Your task to perform on an android device: Go to Wikipedia Image 0: 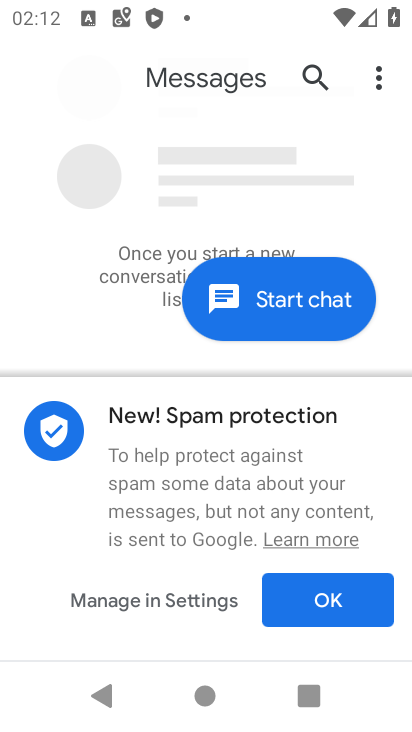
Step 0: press home button
Your task to perform on an android device: Go to Wikipedia Image 1: 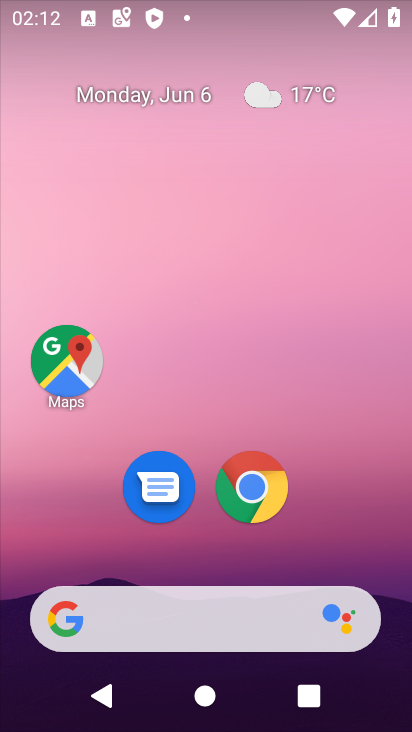
Step 1: click (254, 485)
Your task to perform on an android device: Go to Wikipedia Image 2: 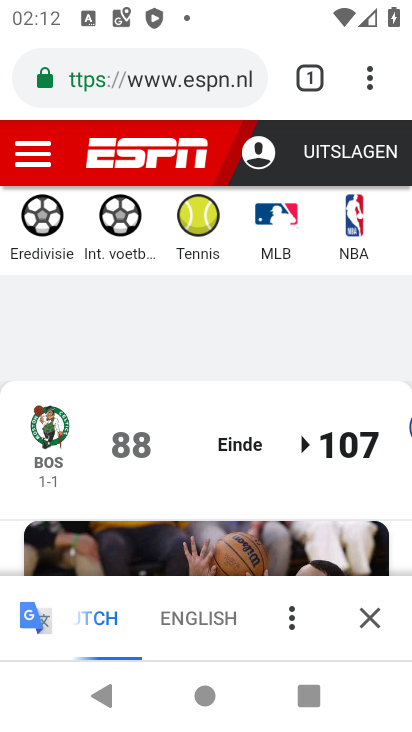
Step 2: click (201, 59)
Your task to perform on an android device: Go to Wikipedia Image 3: 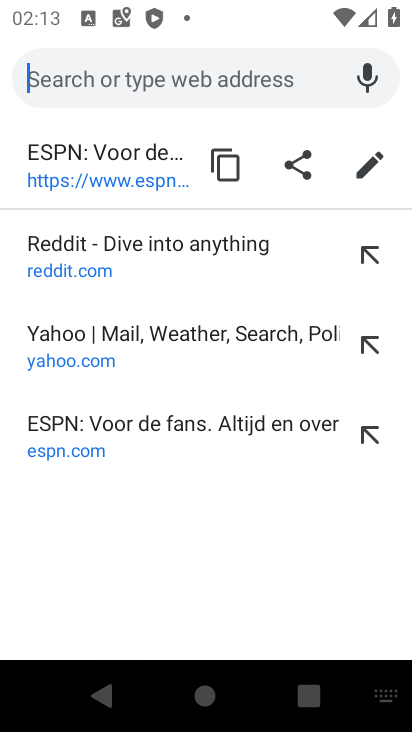
Step 3: type "wikipedia"
Your task to perform on an android device: Go to Wikipedia Image 4: 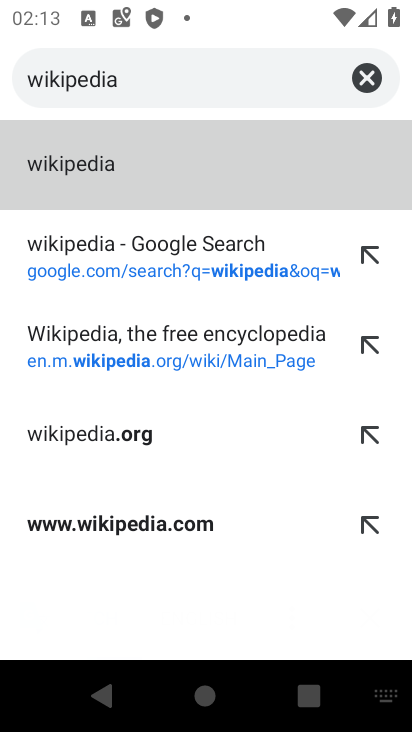
Step 4: click (104, 172)
Your task to perform on an android device: Go to Wikipedia Image 5: 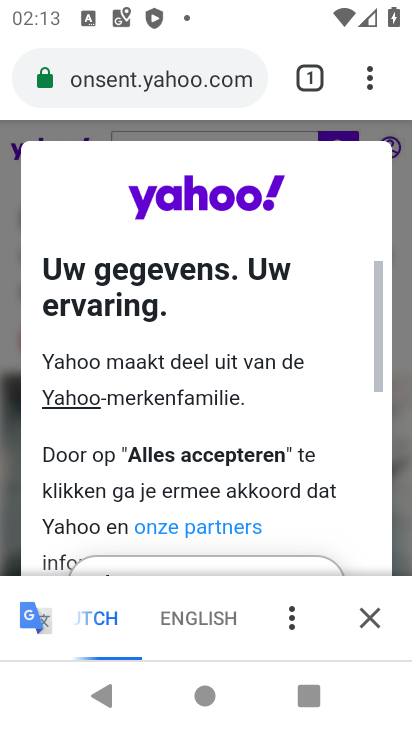
Step 5: drag from (320, 511) to (246, 25)
Your task to perform on an android device: Go to Wikipedia Image 6: 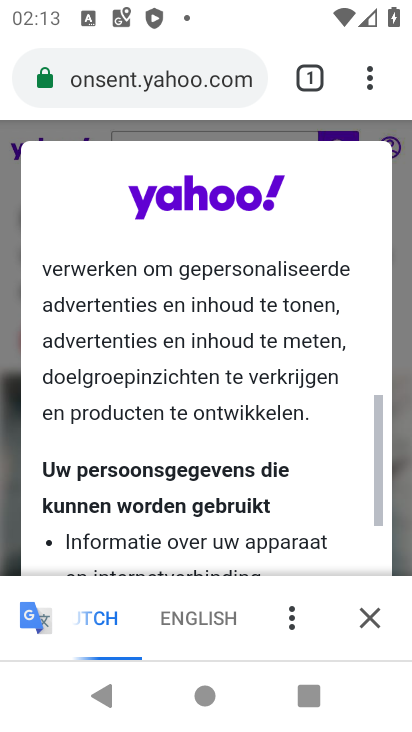
Step 6: drag from (307, 515) to (240, 46)
Your task to perform on an android device: Go to Wikipedia Image 7: 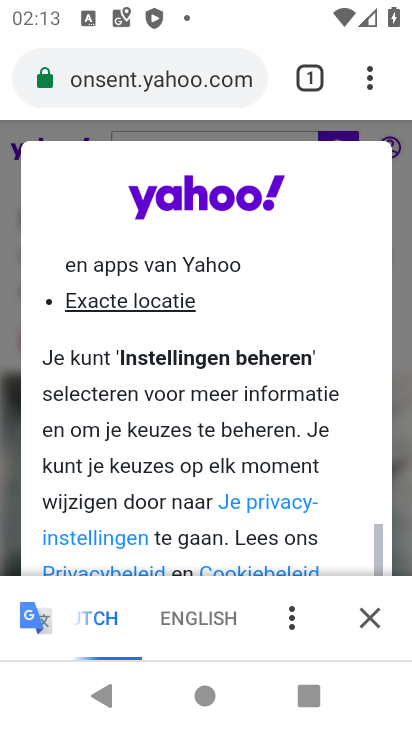
Step 7: drag from (294, 493) to (236, 60)
Your task to perform on an android device: Go to Wikipedia Image 8: 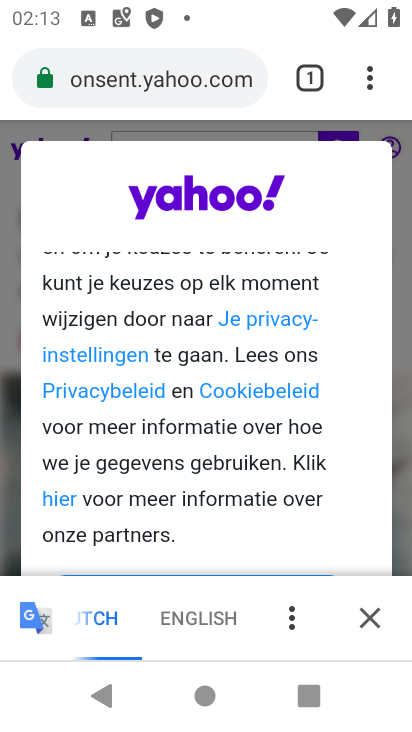
Step 8: click (370, 608)
Your task to perform on an android device: Go to Wikipedia Image 9: 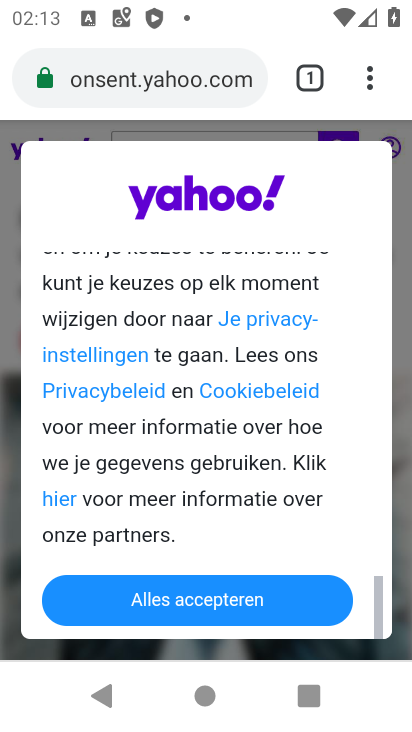
Step 9: click (181, 593)
Your task to perform on an android device: Go to Wikipedia Image 10: 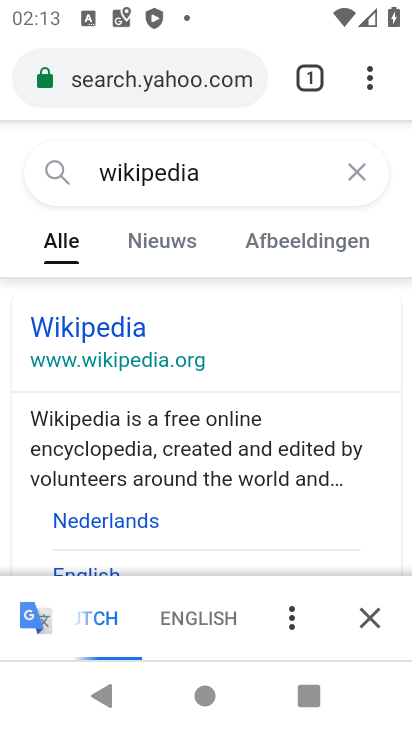
Step 10: click (79, 348)
Your task to perform on an android device: Go to Wikipedia Image 11: 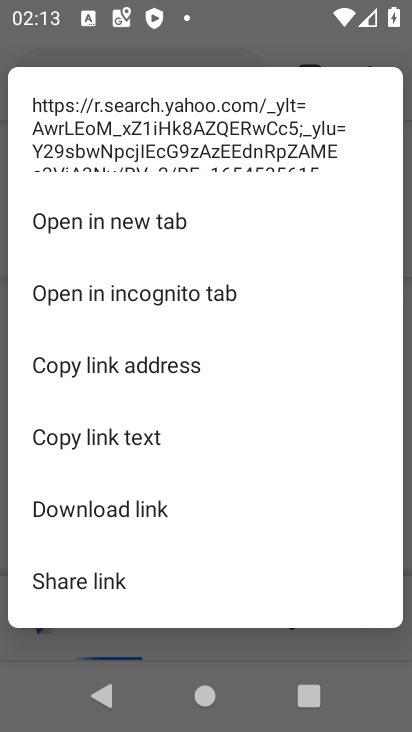
Step 11: press back button
Your task to perform on an android device: Go to Wikipedia Image 12: 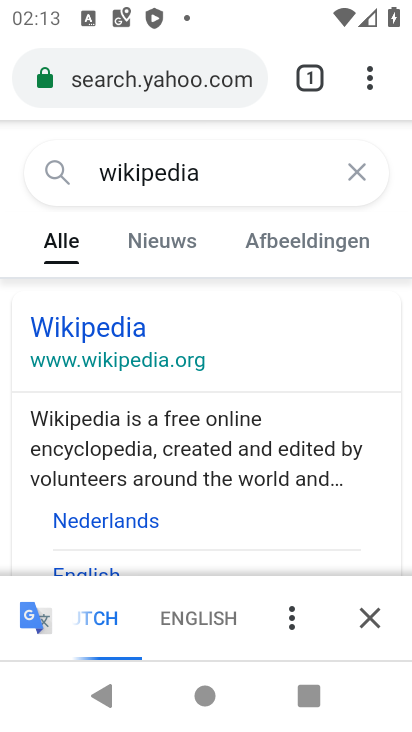
Step 12: click (59, 343)
Your task to perform on an android device: Go to Wikipedia Image 13: 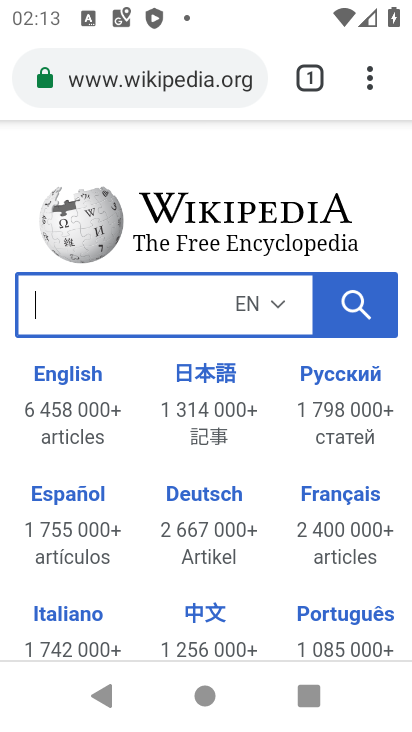
Step 13: task complete